Your task to perform on an android device: see tabs open on other devices in the chrome app Image 0: 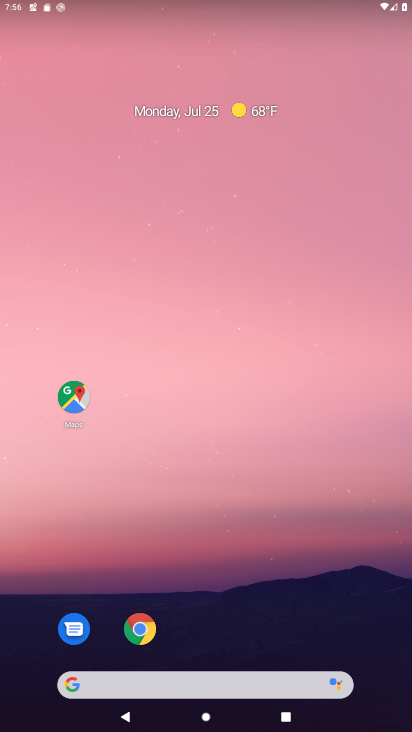
Step 0: drag from (208, 660) to (195, 190)
Your task to perform on an android device: see tabs open on other devices in the chrome app Image 1: 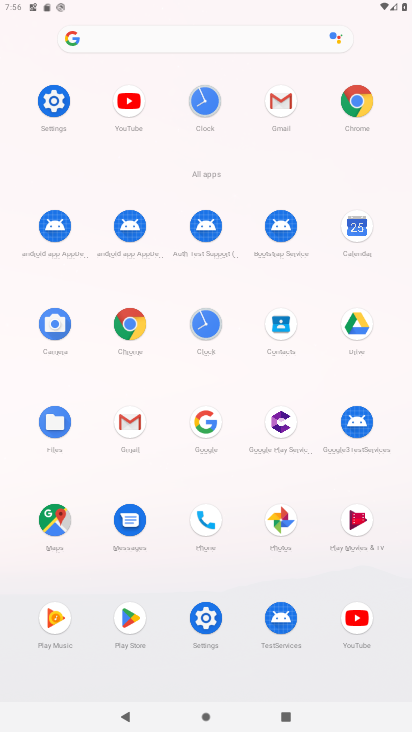
Step 1: click (126, 320)
Your task to perform on an android device: see tabs open on other devices in the chrome app Image 2: 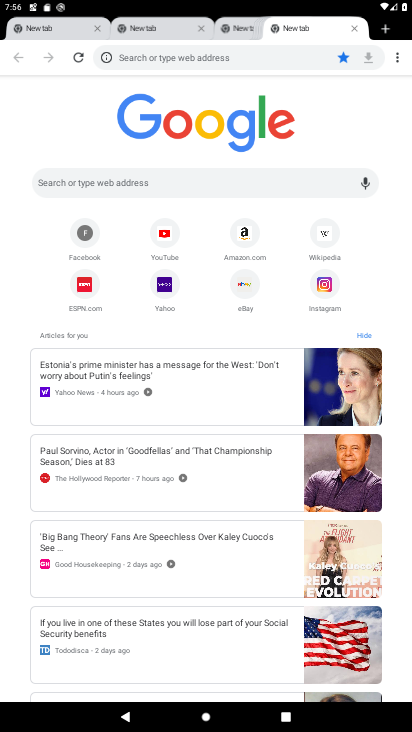
Step 2: click (405, 61)
Your task to perform on an android device: see tabs open on other devices in the chrome app Image 3: 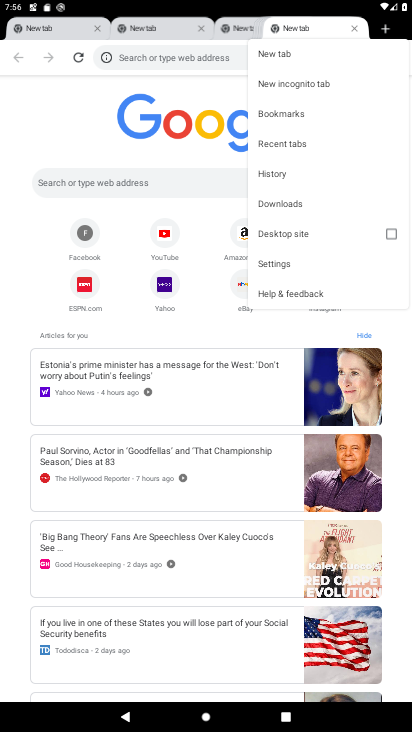
Step 3: click (288, 168)
Your task to perform on an android device: see tabs open on other devices in the chrome app Image 4: 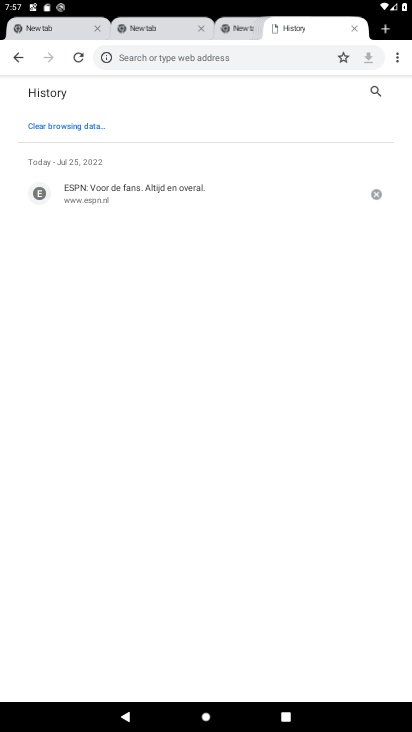
Step 4: task complete